Your task to perform on an android device: Clear the shopping cart on newegg. Add "usb-a" to the cart on newegg Image 0: 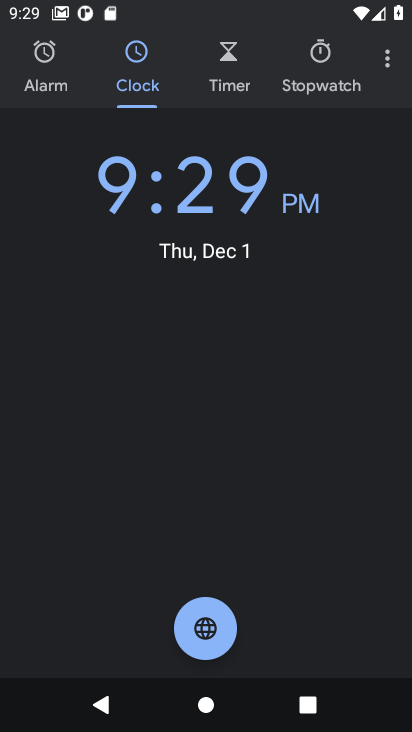
Step 0: press home button
Your task to perform on an android device: Clear the shopping cart on newegg. Add "usb-a" to the cart on newegg Image 1: 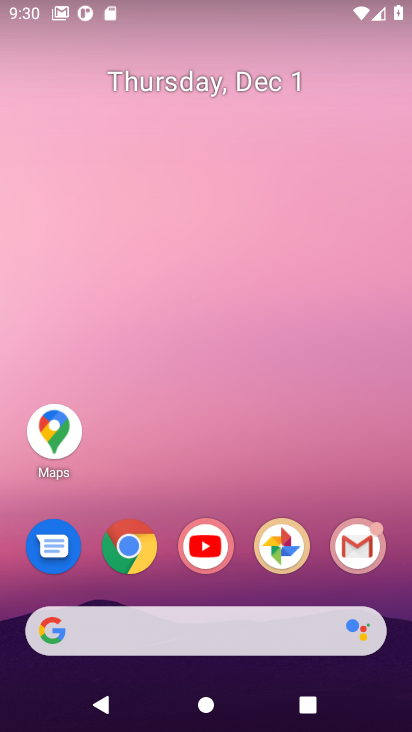
Step 1: click (130, 551)
Your task to perform on an android device: Clear the shopping cart on newegg. Add "usb-a" to the cart on newegg Image 2: 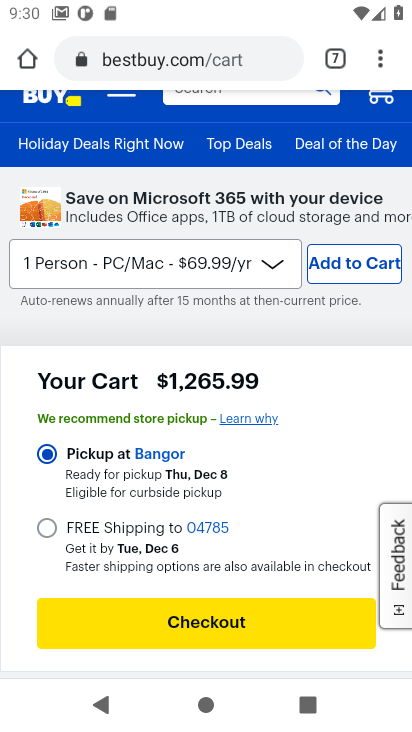
Step 2: click (157, 52)
Your task to perform on an android device: Clear the shopping cart on newegg. Add "usb-a" to the cart on newegg Image 3: 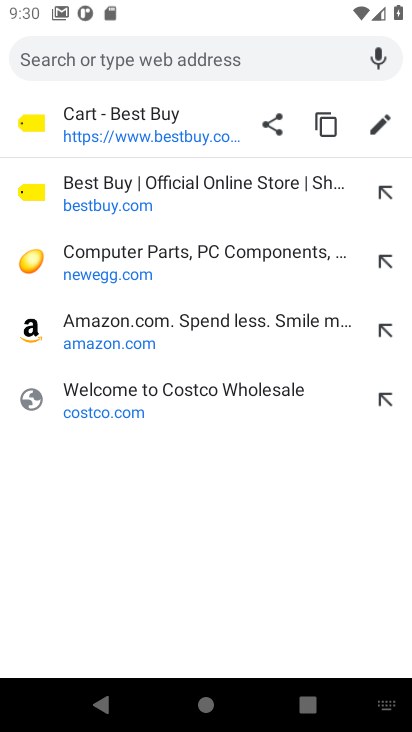
Step 3: click (77, 263)
Your task to perform on an android device: Clear the shopping cart on newegg. Add "usb-a" to the cart on newegg Image 4: 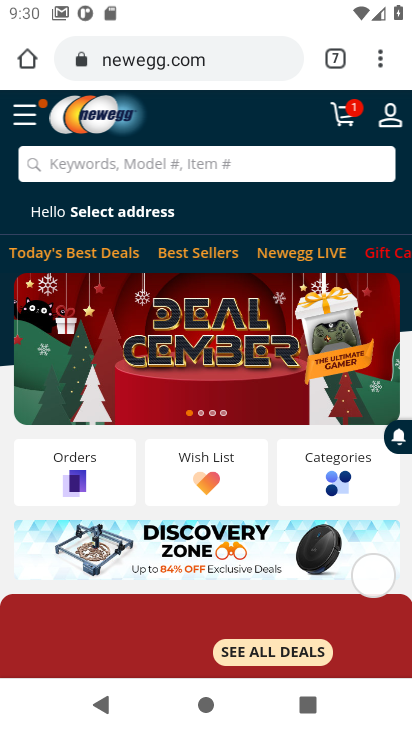
Step 4: click (336, 119)
Your task to perform on an android device: Clear the shopping cart on newegg. Add "usb-a" to the cart on newegg Image 5: 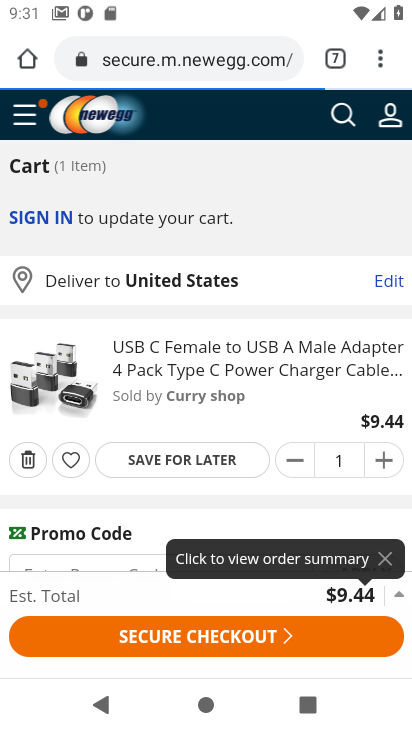
Step 5: click (29, 460)
Your task to perform on an android device: Clear the shopping cart on newegg. Add "usb-a" to the cart on newegg Image 6: 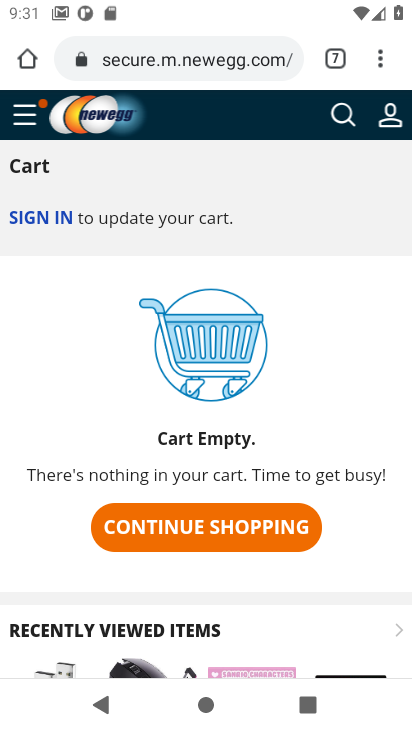
Step 6: click (351, 115)
Your task to perform on an android device: Clear the shopping cart on newegg. Add "usb-a" to the cart on newegg Image 7: 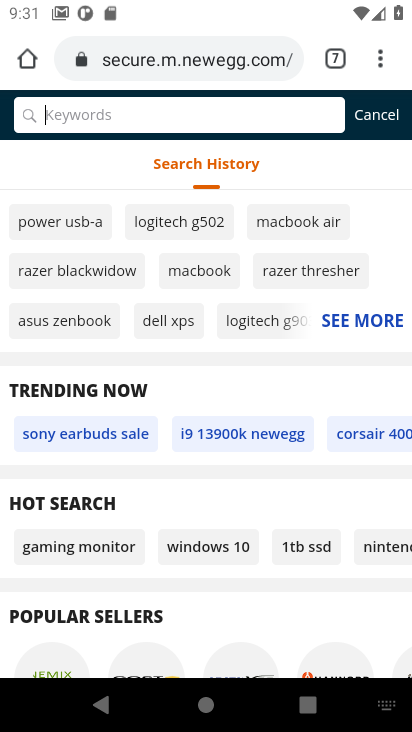
Step 7: type "usb-a"
Your task to perform on an android device: Clear the shopping cart on newegg. Add "usb-a" to the cart on newegg Image 8: 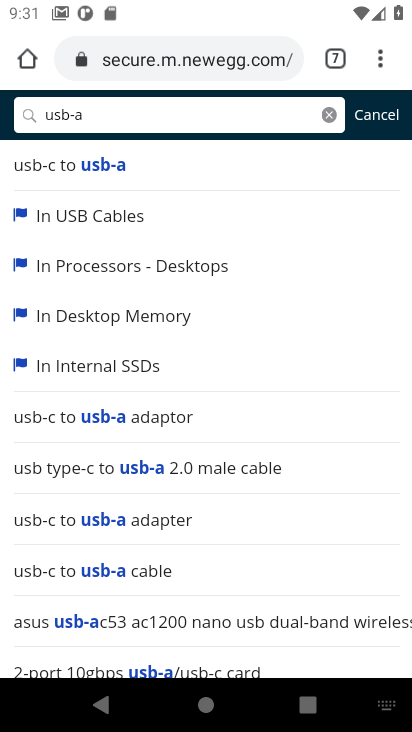
Step 8: drag from (55, 291) to (68, 126)
Your task to perform on an android device: Clear the shopping cart on newegg. Add "usb-a" to the cart on newegg Image 9: 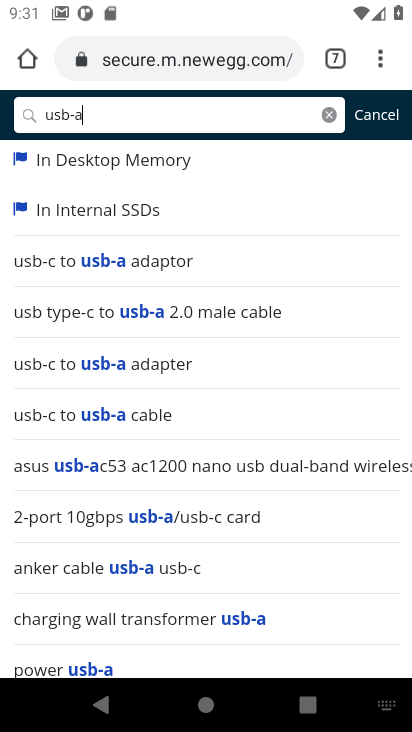
Step 9: drag from (87, 450) to (91, 113)
Your task to perform on an android device: Clear the shopping cart on newegg. Add "usb-a" to the cart on newegg Image 10: 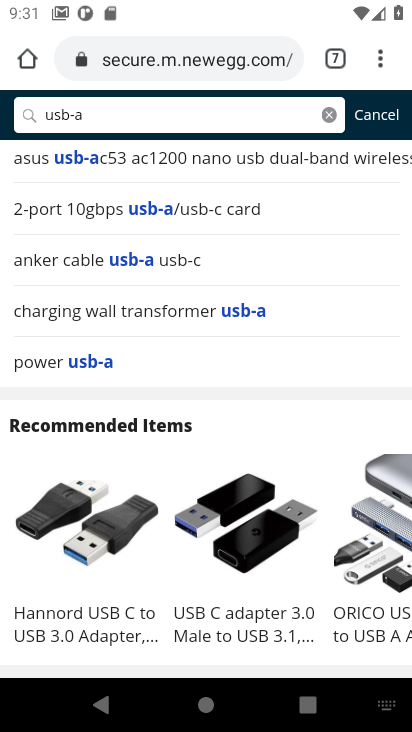
Step 10: click (56, 366)
Your task to perform on an android device: Clear the shopping cart on newegg. Add "usb-a" to the cart on newegg Image 11: 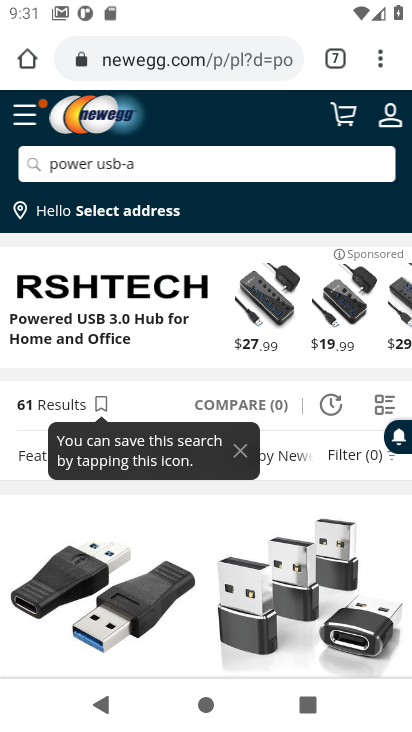
Step 11: drag from (241, 620) to (266, 299)
Your task to perform on an android device: Clear the shopping cart on newegg. Add "usb-a" to the cart on newegg Image 12: 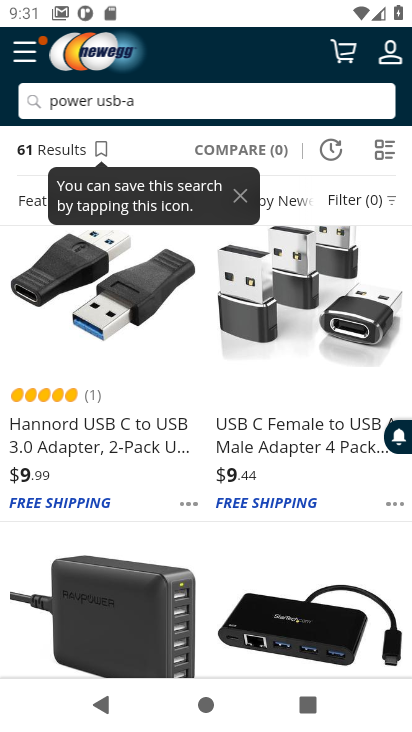
Step 12: click (324, 357)
Your task to perform on an android device: Clear the shopping cart on newegg. Add "usb-a" to the cart on newegg Image 13: 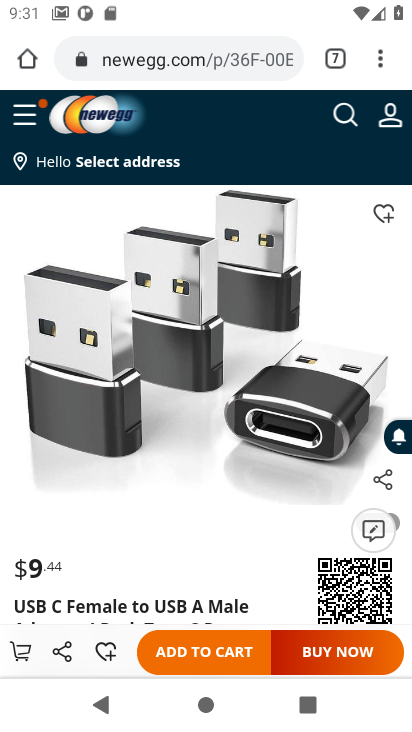
Step 13: click (178, 648)
Your task to perform on an android device: Clear the shopping cart on newegg. Add "usb-a" to the cart on newegg Image 14: 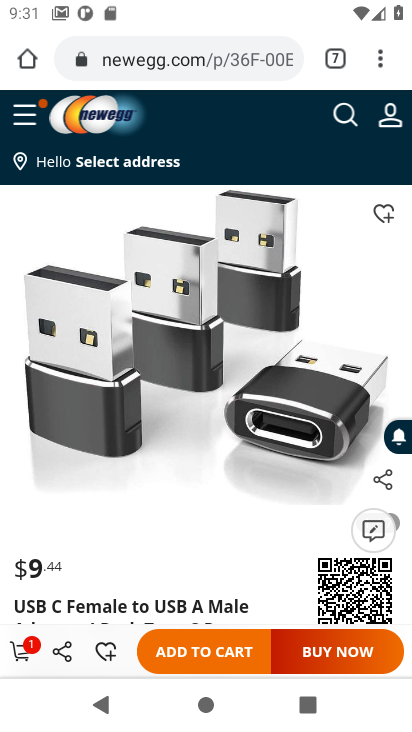
Step 14: click (204, 648)
Your task to perform on an android device: Clear the shopping cart on newegg. Add "usb-a" to the cart on newegg Image 15: 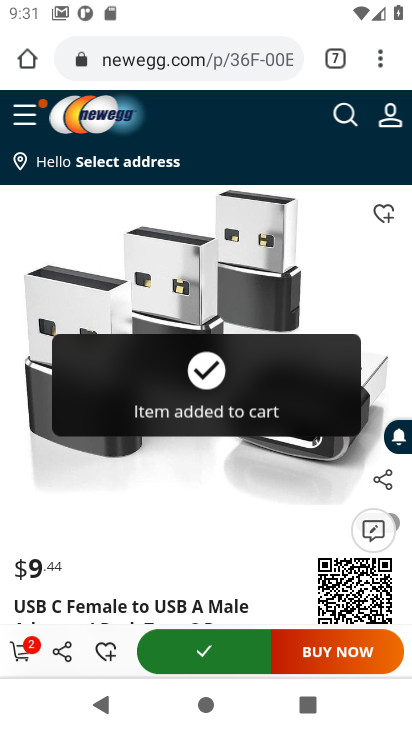
Step 15: task complete